Your task to perform on an android device: Go to sound settings Image 0: 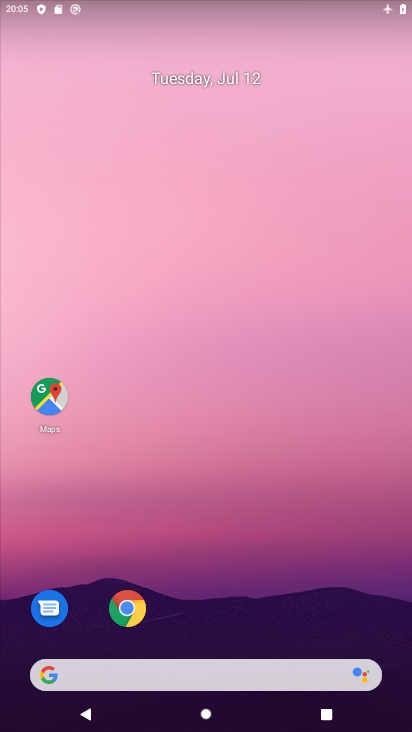
Step 0: drag from (195, 643) to (191, 41)
Your task to perform on an android device: Go to sound settings Image 1: 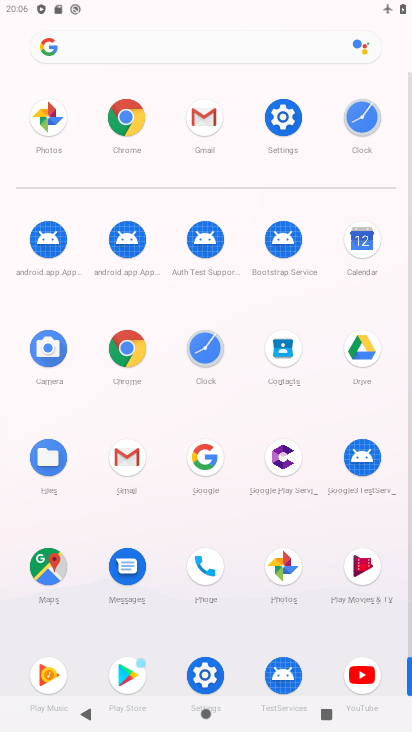
Step 1: click (266, 133)
Your task to perform on an android device: Go to sound settings Image 2: 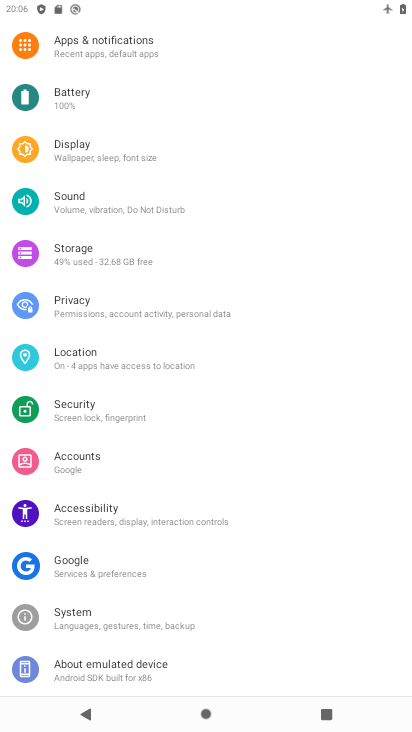
Step 2: click (112, 221)
Your task to perform on an android device: Go to sound settings Image 3: 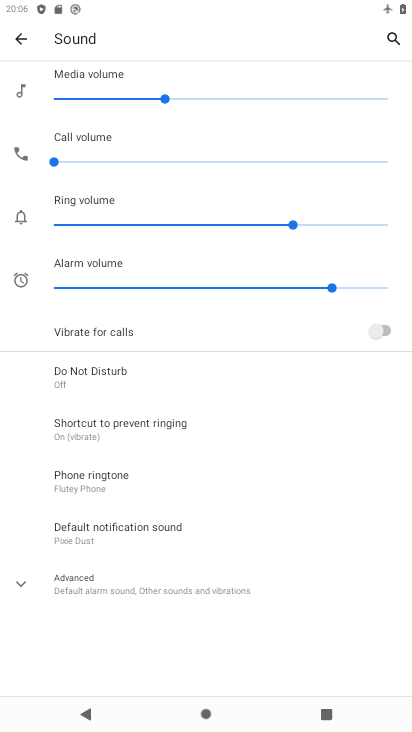
Step 3: task complete